Your task to perform on an android device: Open Google Image 0: 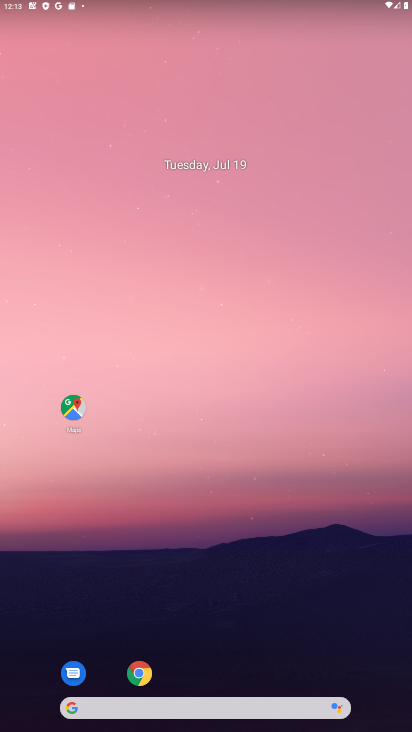
Step 0: drag from (129, 594) to (209, 110)
Your task to perform on an android device: Open Google Image 1: 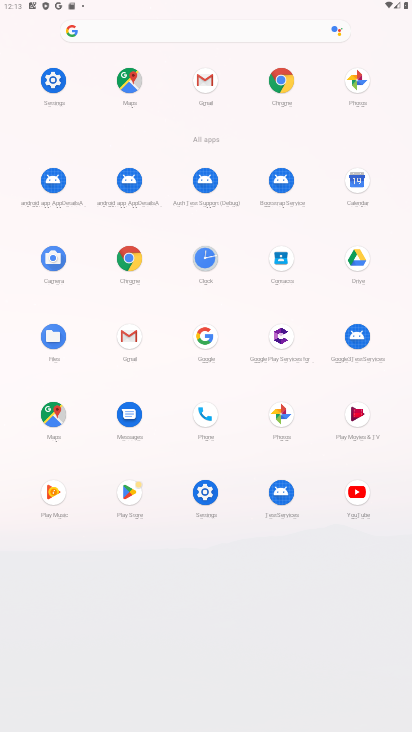
Step 1: click (206, 353)
Your task to perform on an android device: Open Google Image 2: 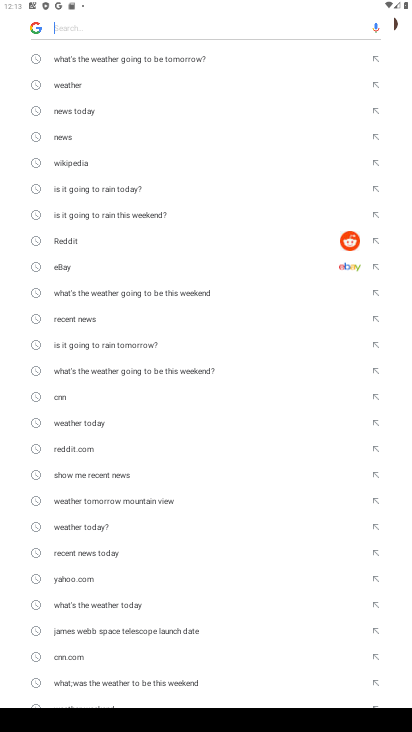
Step 2: task complete